Your task to perform on an android device: add a contact in the contacts app Image 0: 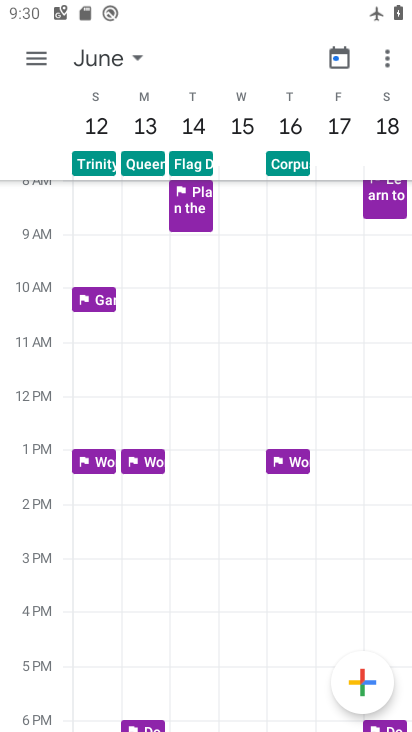
Step 0: press home button
Your task to perform on an android device: add a contact in the contacts app Image 1: 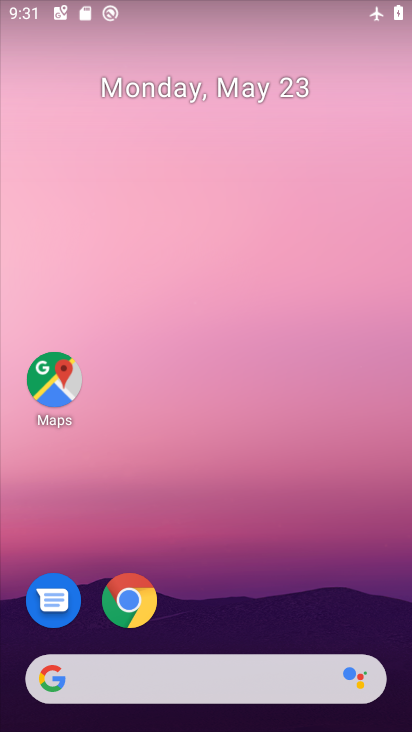
Step 1: drag from (229, 723) to (217, 89)
Your task to perform on an android device: add a contact in the contacts app Image 2: 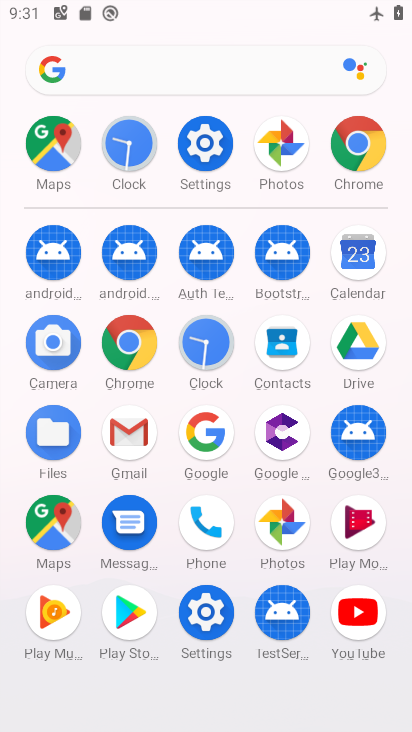
Step 2: click (284, 339)
Your task to perform on an android device: add a contact in the contacts app Image 3: 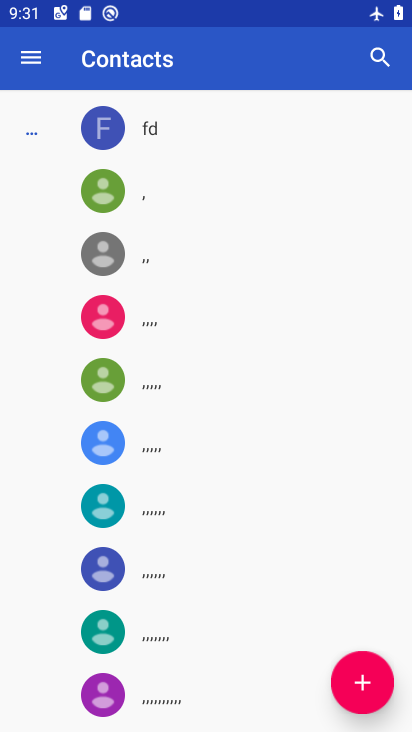
Step 3: click (362, 683)
Your task to perform on an android device: add a contact in the contacts app Image 4: 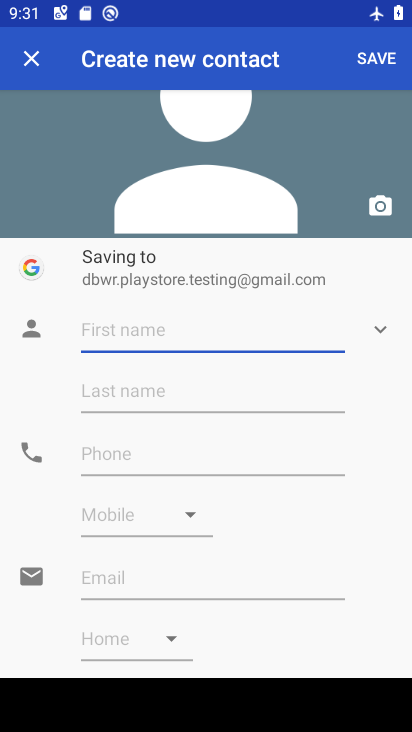
Step 4: type "angad"
Your task to perform on an android device: add a contact in the contacts app Image 5: 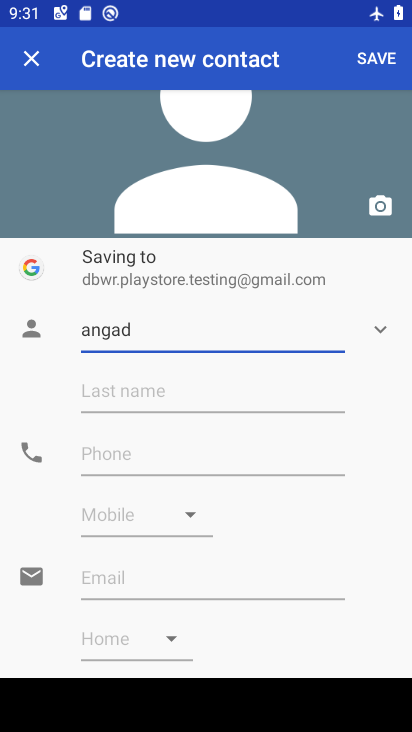
Step 5: click (132, 461)
Your task to perform on an android device: add a contact in the contacts app Image 6: 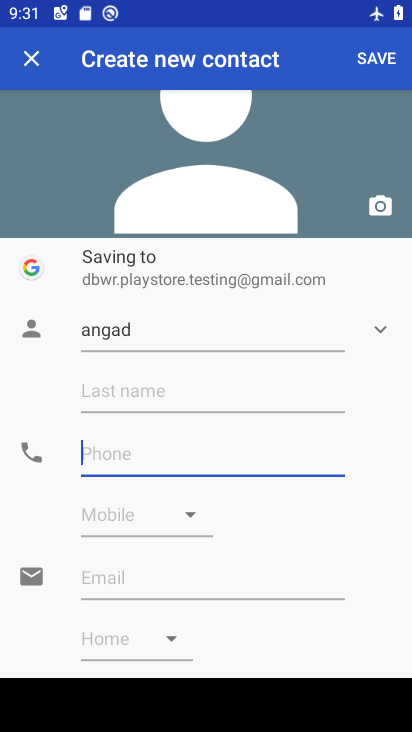
Step 6: type "89898898"
Your task to perform on an android device: add a contact in the contacts app Image 7: 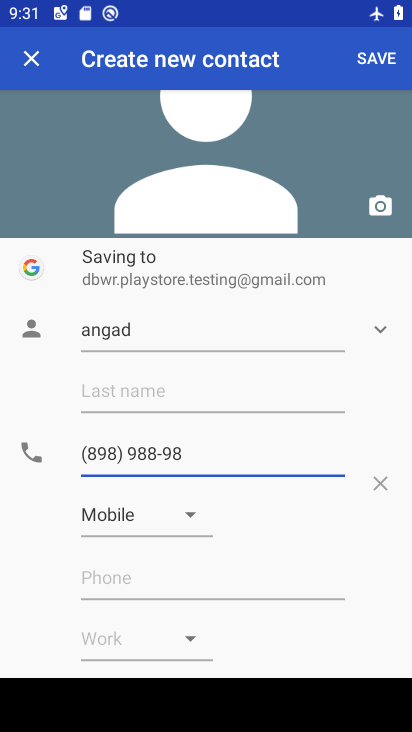
Step 7: click (377, 64)
Your task to perform on an android device: add a contact in the contacts app Image 8: 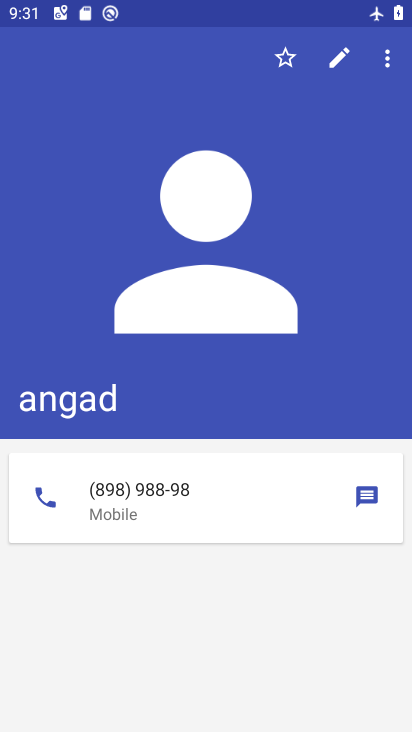
Step 8: task complete